Your task to perform on an android device: all mails in gmail Image 0: 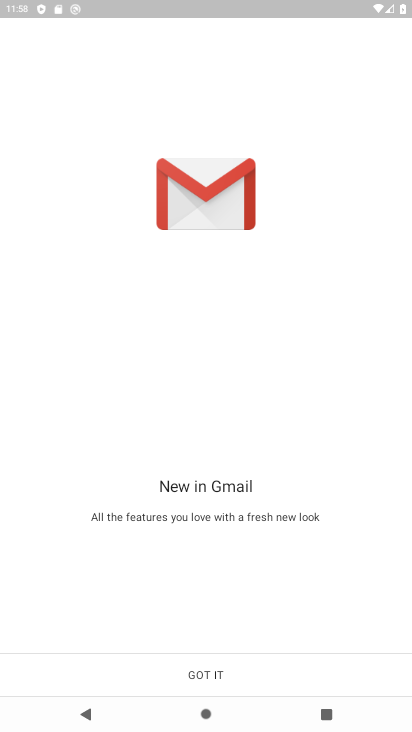
Step 0: click (211, 666)
Your task to perform on an android device: all mails in gmail Image 1: 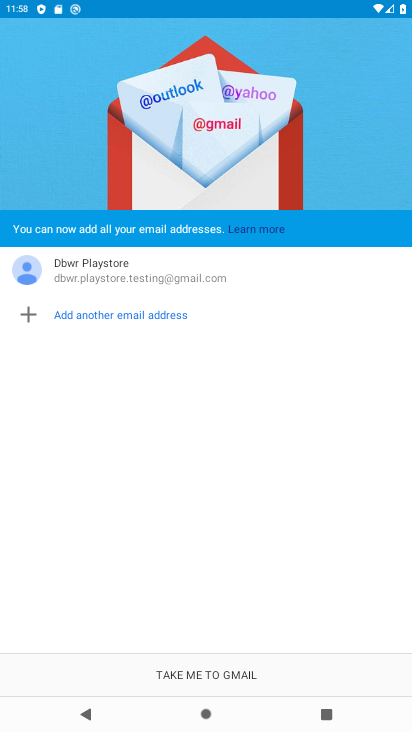
Step 1: click (209, 677)
Your task to perform on an android device: all mails in gmail Image 2: 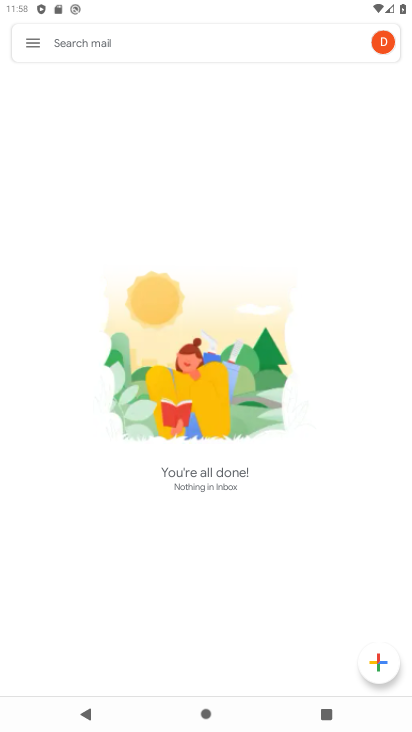
Step 2: click (33, 44)
Your task to perform on an android device: all mails in gmail Image 3: 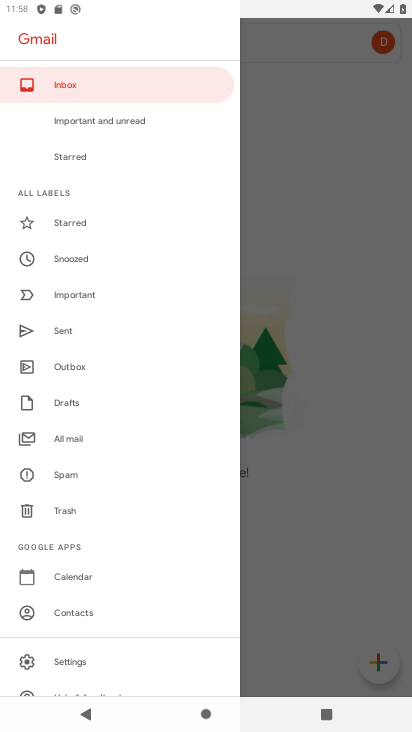
Step 3: click (76, 444)
Your task to perform on an android device: all mails in gmail Image 4: 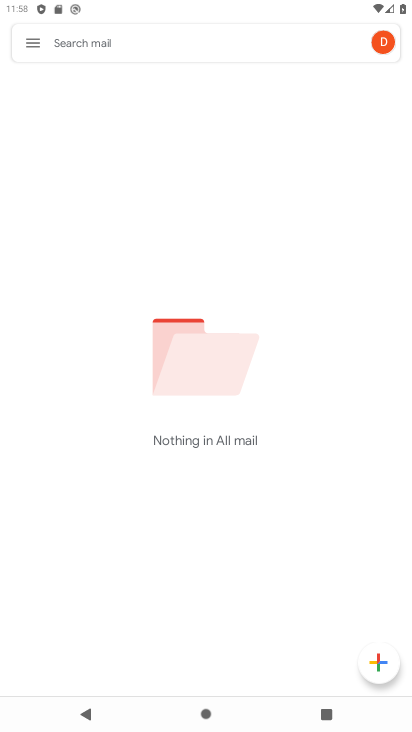
Step 4: task complete